Your task to perform on an android device: Toggle the flashlight Image 0: 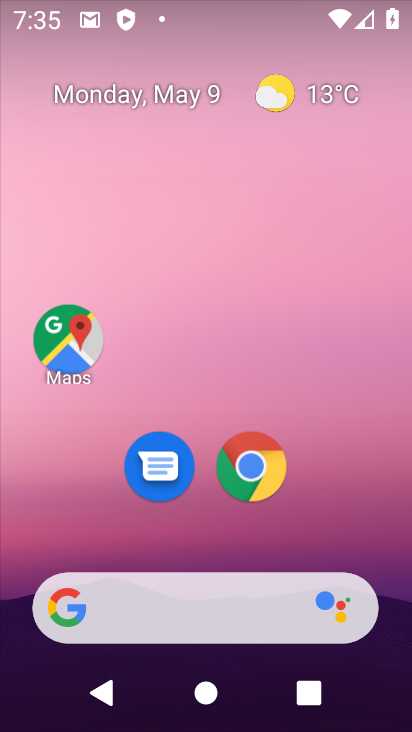
Step 0: drag from (324, 565) to (234, 145)
Your task to perform on an android device: Toggle the flashlight Image 1: 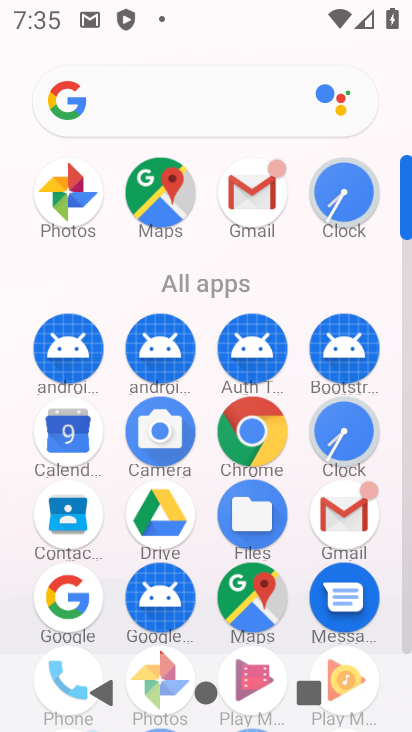
Step 1: drag from (287, 494) to (209, 164)
Your task to perform on an android device: Toggle the flashlight Image 2: 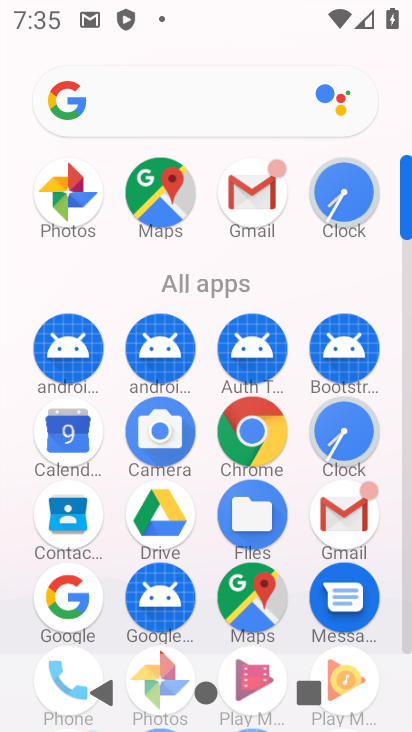
Step 2: click (271, 155)
Your task to perform on an android device: Toggle the flashlight Image 3: 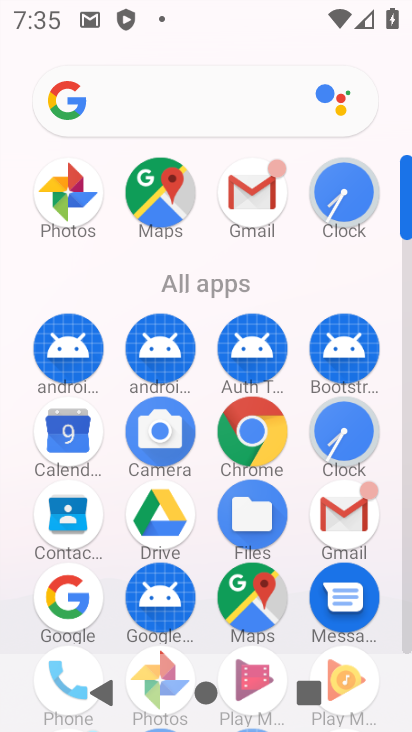
Step 3: drag from (272, 451) to (308, 149)
Your task to perform on an android device: Toggle the flashlight Image 4: 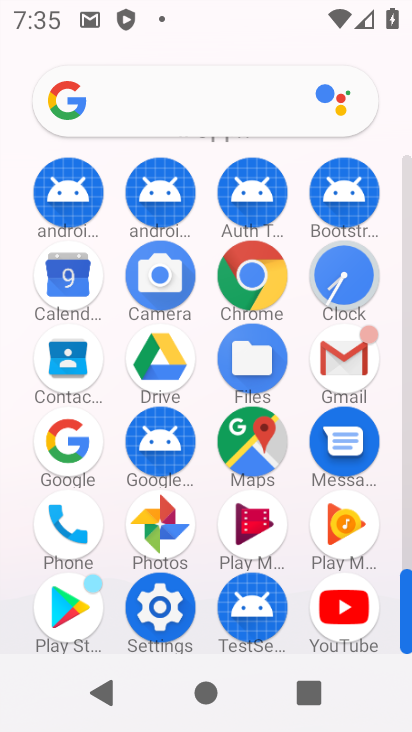
Step 4: drag from (276, 405) to (297, 96)
Your task to perform on an android device: Toggle the flashlight Image 5: 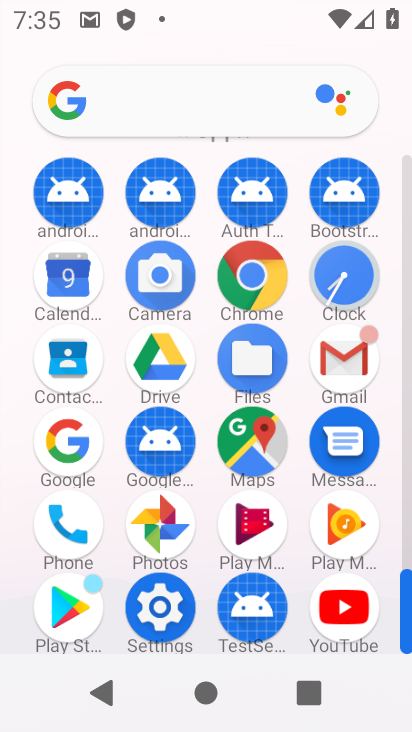
Step 5: click (167, 616)
Your task to perform on an android device: Toggle the flashlight Image 6: 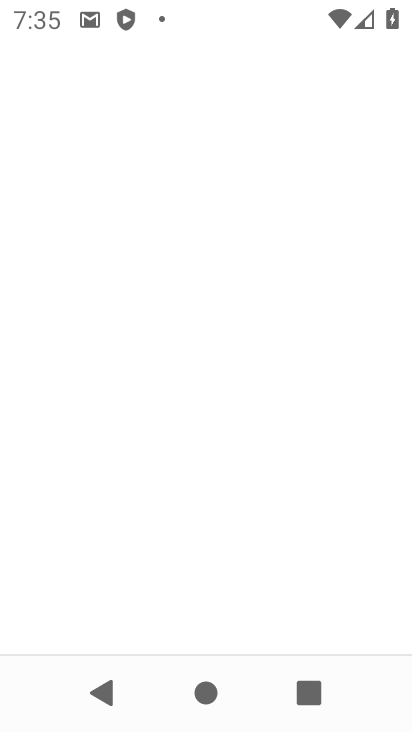
Step 6: click (172, 610)
Your task to perform on an android device: Toggle the flashlight Image 7: 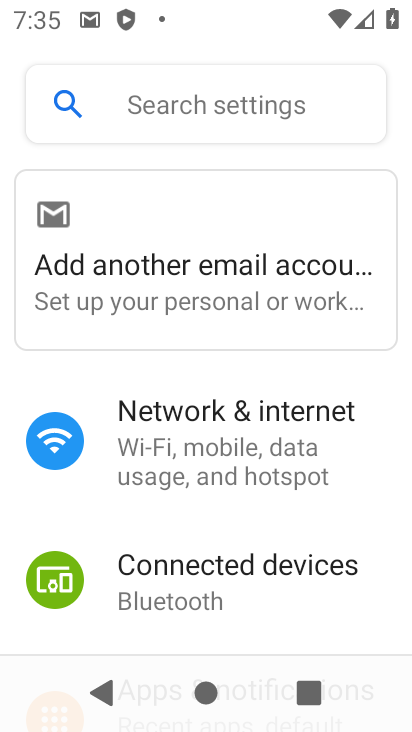
Step 7: task complete